Your task to perform on an android device: Open the calendar and show me this week's events? Image 0: 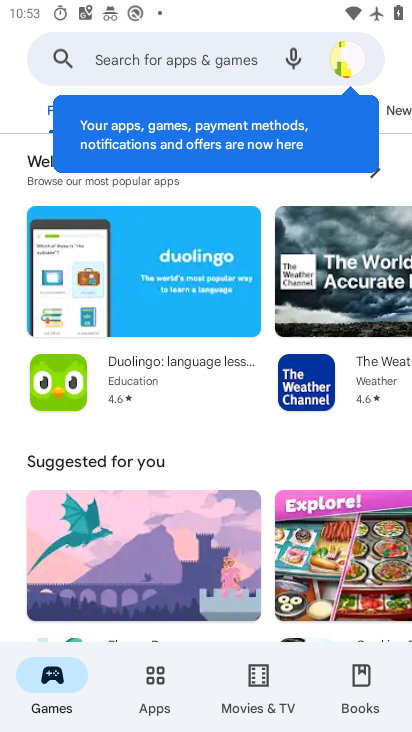
Step 0: press back button
Your task to perform on an android device: Open the calendar and show me this week's events? Image 1: 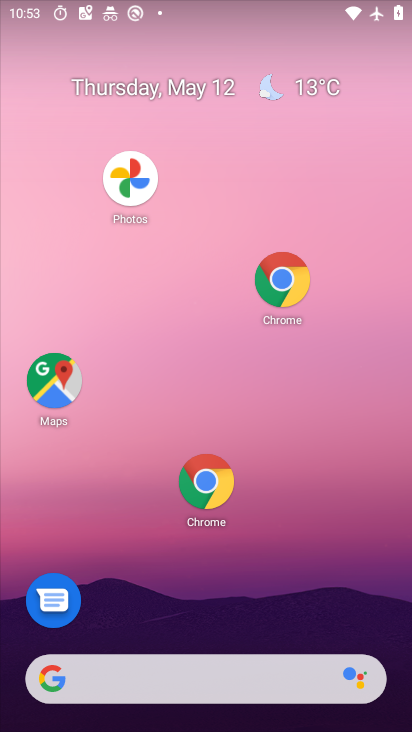
Step 1: drag from (337, 547) to (141, 2)
Your task to perform on an android device: Open the calendar and show me this week's events? Image 2: 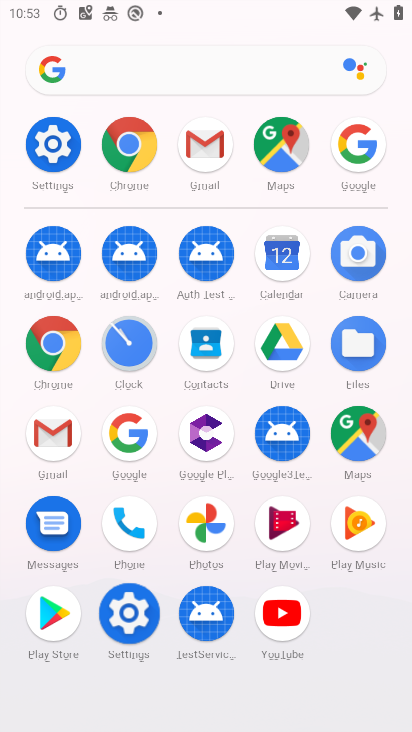
Step 2: click (209, 356)
Your task to perform on an android device: Open the calendar and show me this week's events? Image 3: 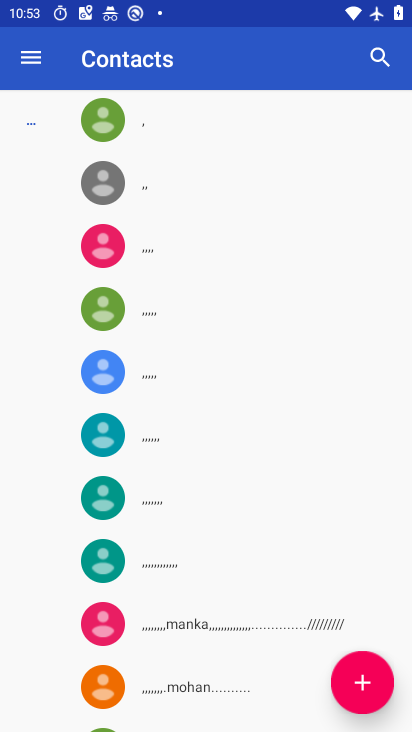
Step 3: press back button
Your task to perform on an android device: Open the calendar and show me this week's events? Image 4: 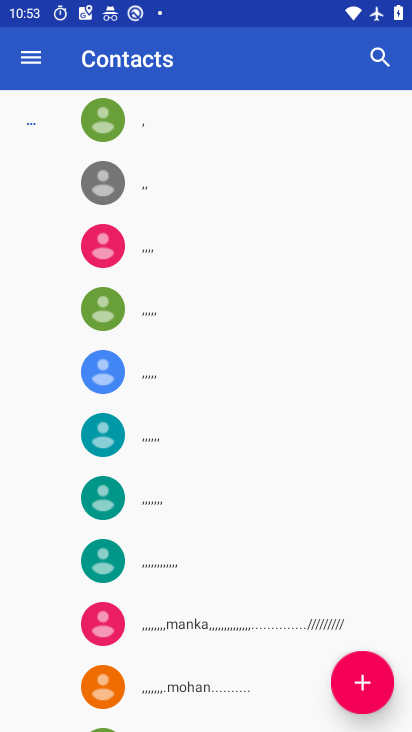
Step 4: press back button
Your task to perform on an android device: Open the calendar and show me this week's events? Image 5: 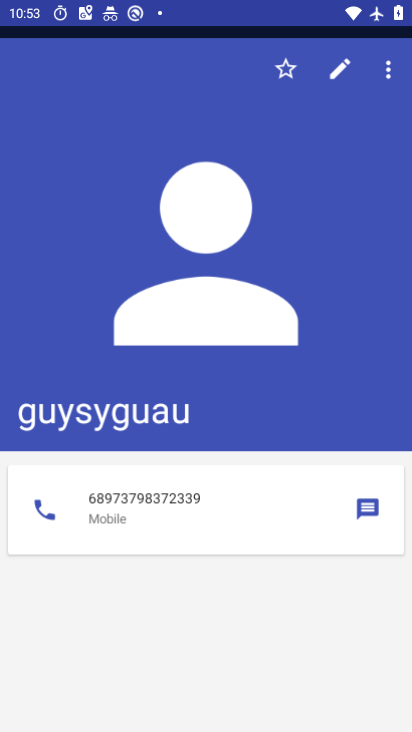
Step 5: press back button
Your task to perform on an android device: Open the calendar and show me this week's events? Image 6: 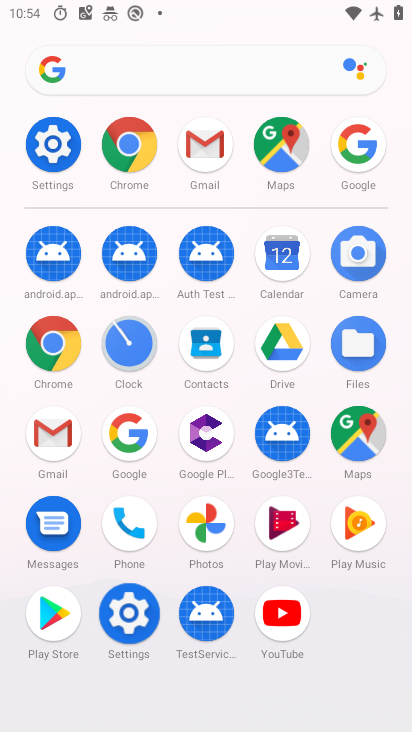
Step 6: click (275, 259)
Your task to perform on an android device: Open the calendar and show me this week's events? Image 7: 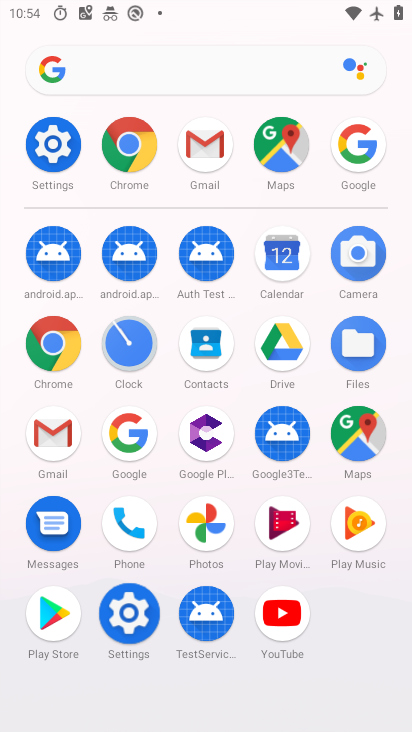
Step 7: click (275, 259)
Your task to perform on an android device: Open the calendar and show me this week's events? Image 8: 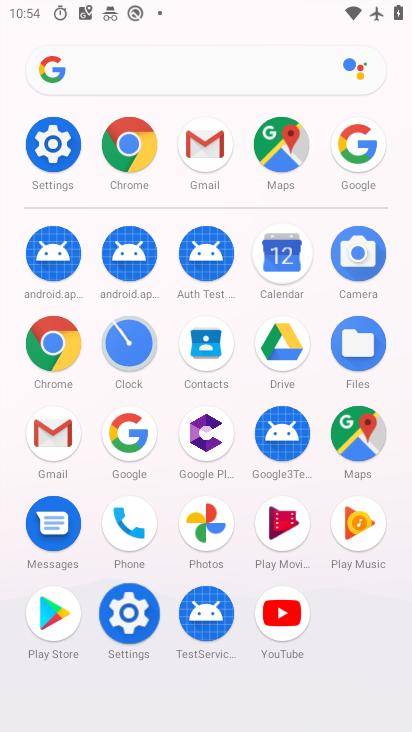
Step 8: click (275, 261)
Your task to perform on an android device: Open the calendar and show me this week's events? Image 9: 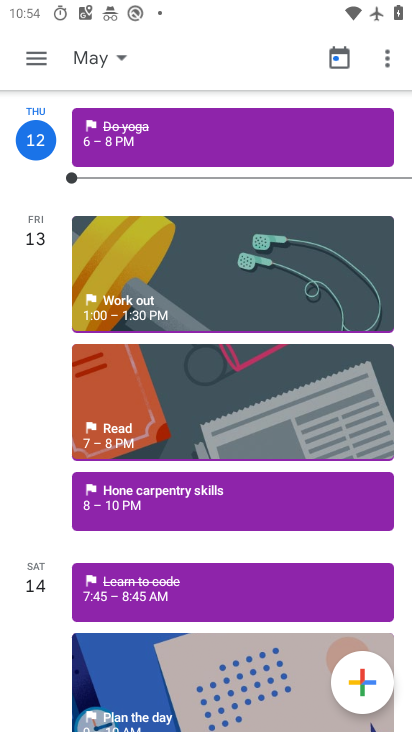
Step 9: click (122, 61)
Your task to perform on an android device: Open the calendar and show me this week's events? Image 10: 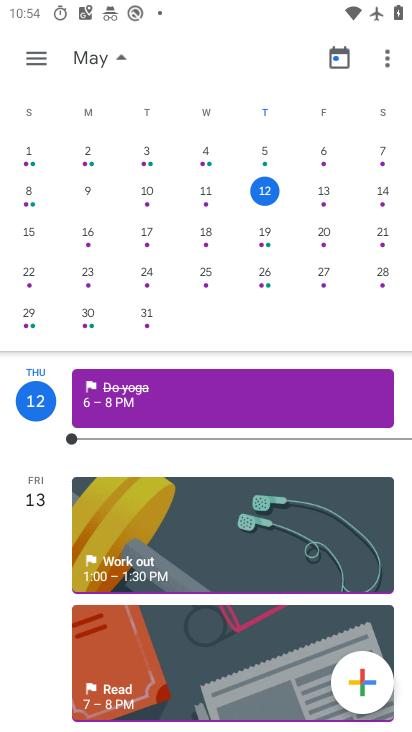
Step 10: click (330, 186)
Your task to perform on an android device: Open the calendar and show me this week's events? Image 11: 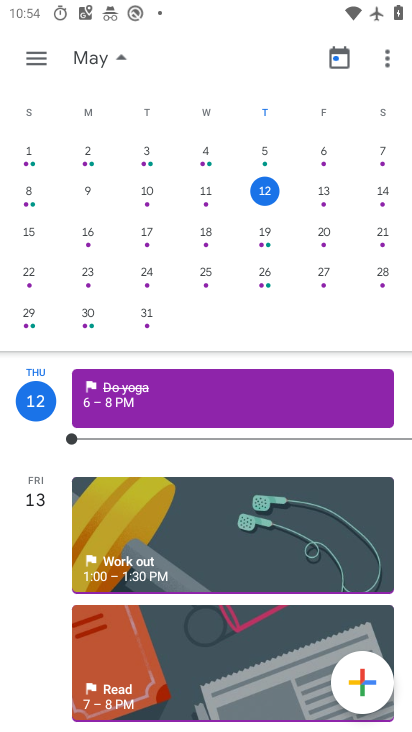
Step 11: click (330, 186)
Your task to perform on an android device: Open the calendar and show me this week's events? Image 12: 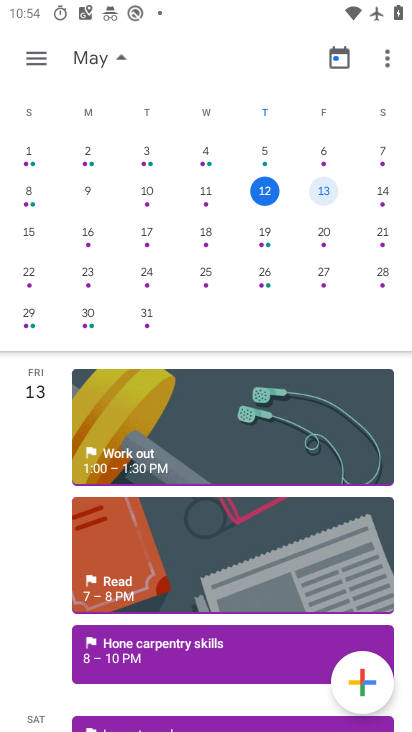
Step 12: click (329, 186)
Your task to perform on an android device: Open the calendar and show me this week's events? Image 13: 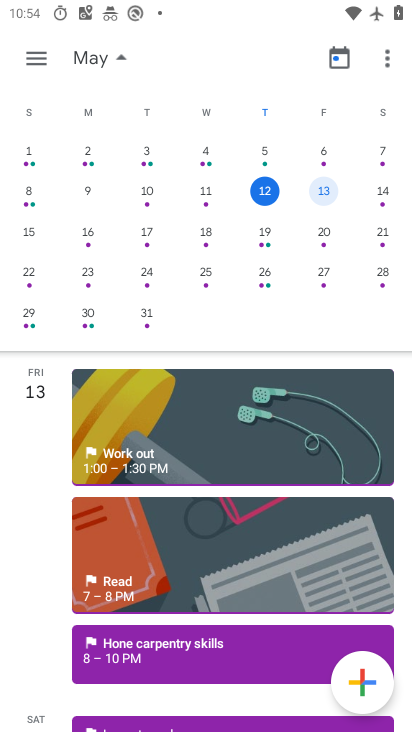
Step 13: click (317, 200)
Your task to perform on an android device: Open the calendar and show me this week's events? Image 14: 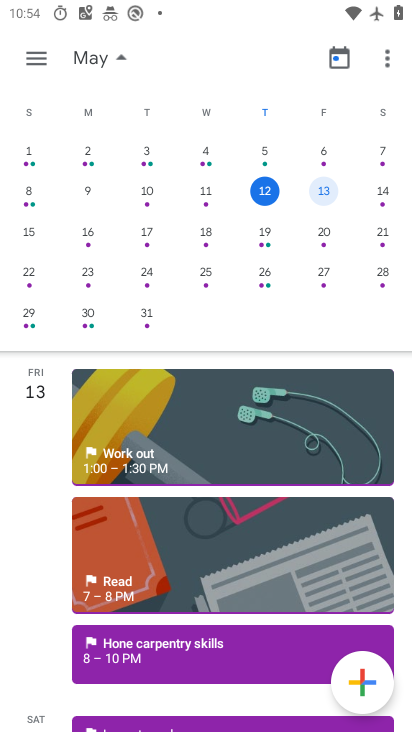
Step 14: click (317, 200)
Your task to perform on an android device: Open the calendar and show me this week's events? Image 15: 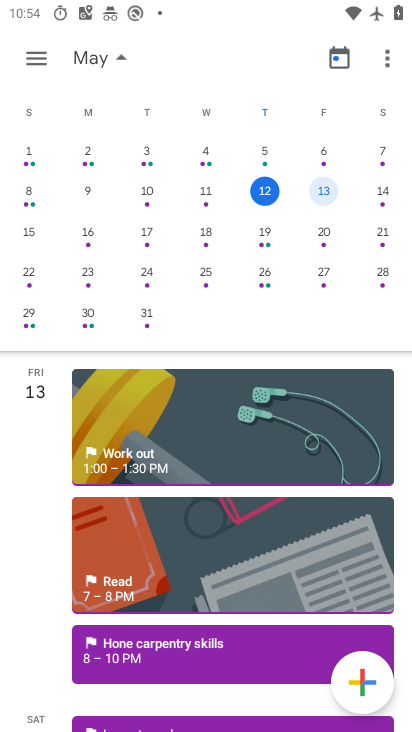
Step 15: click (321, 187)
Your task to perform on an android device: Open the calendar and show me this week's events? Image 16: 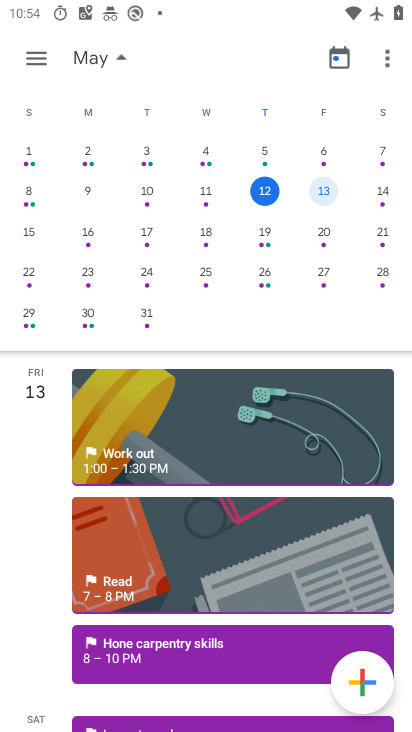
Step 16: drag from (236, 599) to (212, 388)
Your task to perform on an android device: Open the calendar and show me this week's events? Image 17: 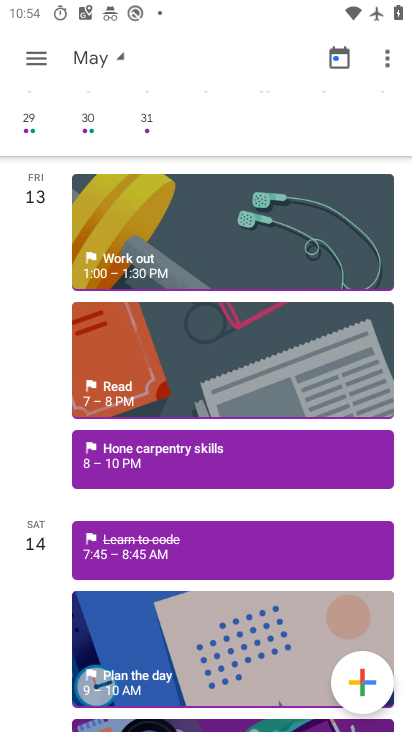
Step 17: drag from (208, 584) to (114, 16)
Your task to perform on an android device: Open the calendar and show me this week's events? Image 18: 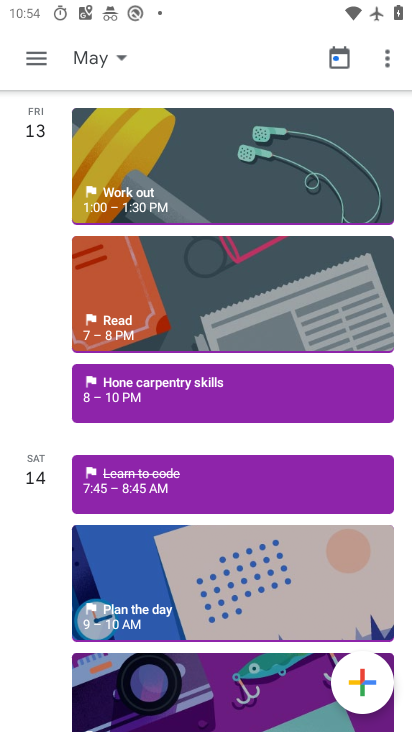
Step 18: drag from (110, 509) to (186, 21)
Your task to perform on an android device: Open the calendar and show me this week's events? Image 19: 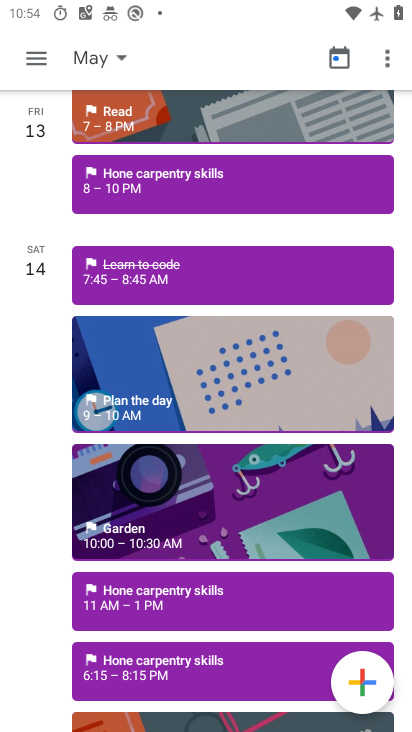
Step 19: click (136, 245)
Your task to perform on an android device: Open the calendar and show me this week's events? Image 20: 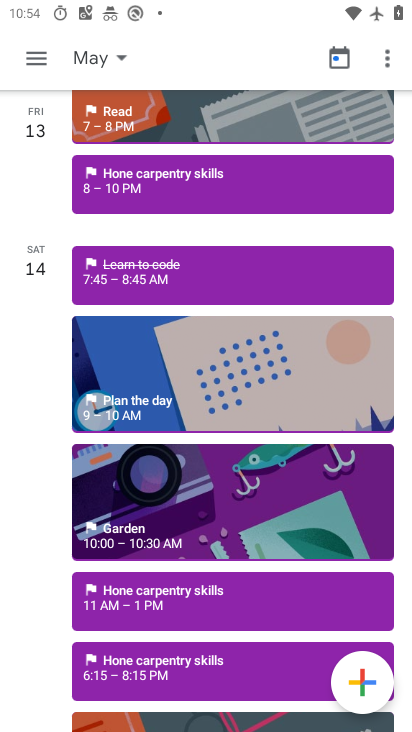
Step 20: click (148, 271)
Your task to perform on an android device: Open the calendar and show me this week's events? Image 21: 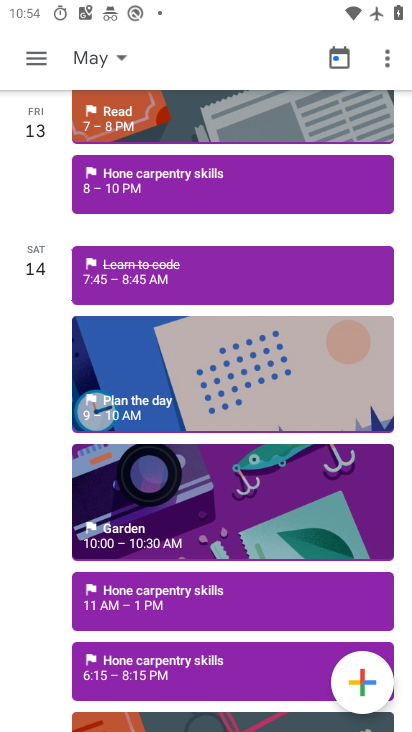
Step 21: click (157, 275)
Your task to perform on an android device: Open the calendar and show me this week's events? Image 22: 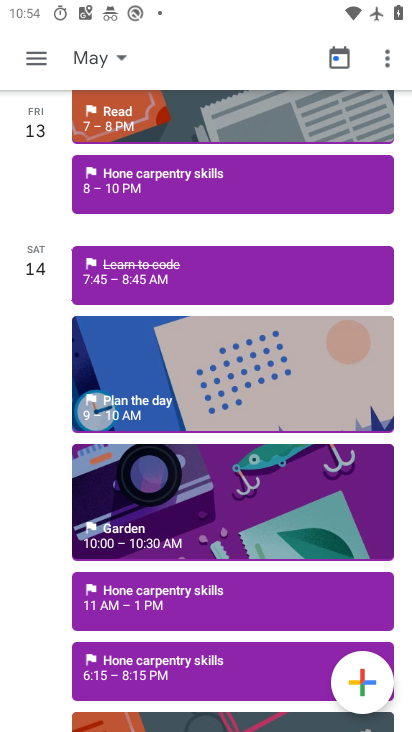
Step 22: click (158, 275)
Your task to perform on an android device: Open the calendar and show me this week's events? Image 23: 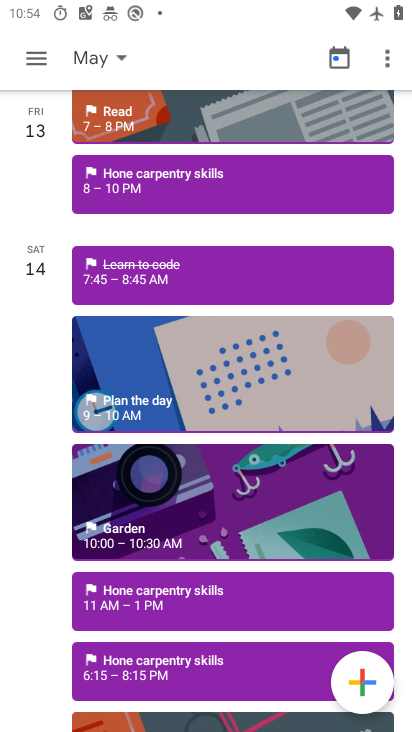
Step 23: task complete